Your task to perform on an android device: Search for Mexican restaurants on Maps Image 0: 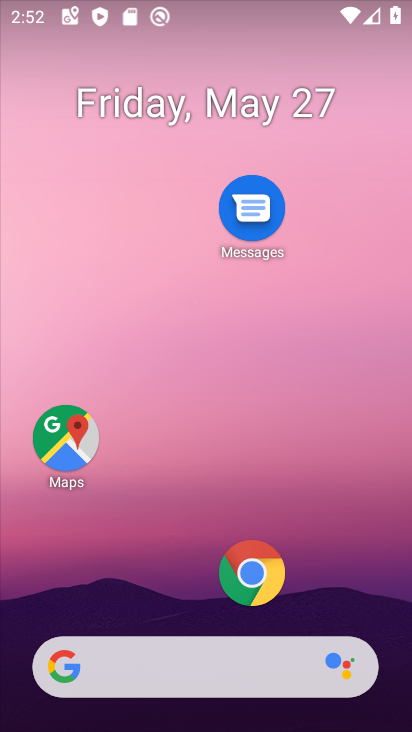
Step 0: drag from (223, 604) to (185, 271)
Your task to perform on an android device: Search for Mexican restaurants on Maps Image 1: 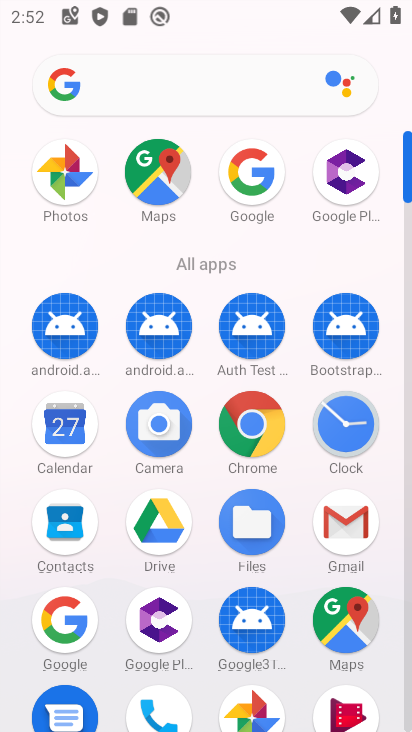
Step 1: click (333, 617)
Your task to perform on an android device: Search for Mexican restaurants on Maps Image 2: 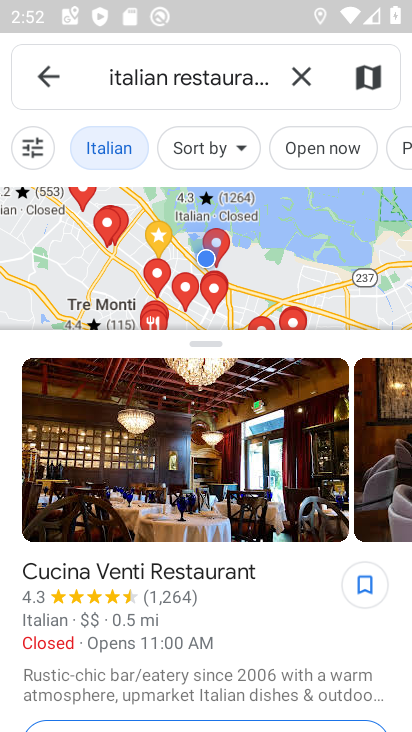
Step 2: click (295, 83)
Your task to perform on an android device: Search for Mexican restaurants on Maps Image 3: 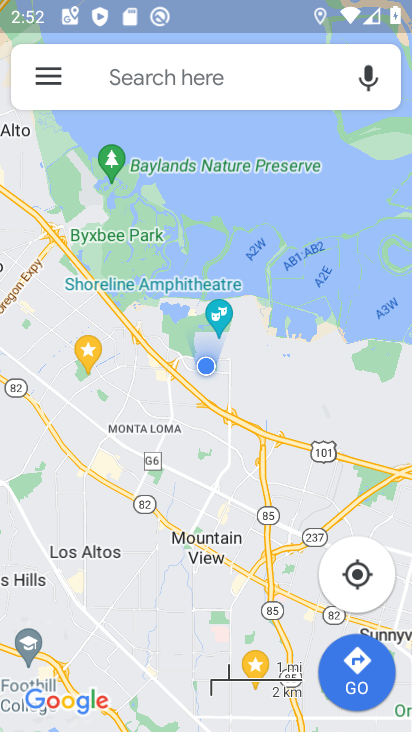
Step 3: click (207, 76)
Your task to perform on an android device: Search for Mexican restaurants on Maps Image 4: 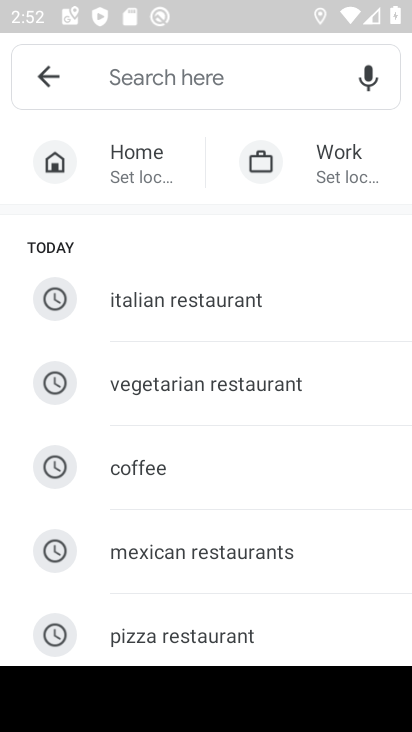
Step 4: type "mexican restaurants"
Your task to perform on an android device: Search for Mexican restaurants on Maps Image 5: 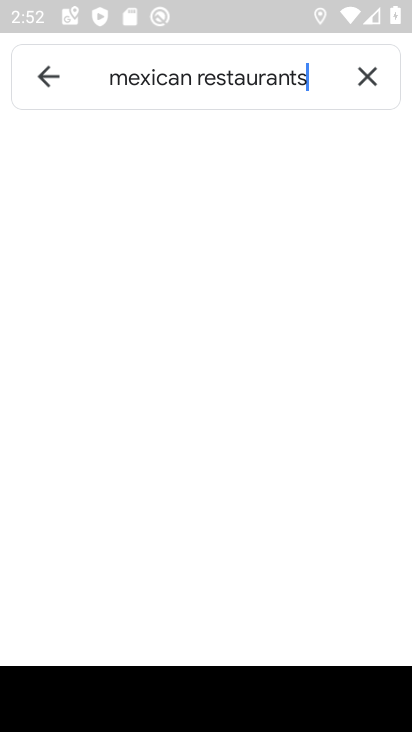
Step 5: type ""
Your task to perform on an android device: Search for Mexican restaurants on Maps Image 6: 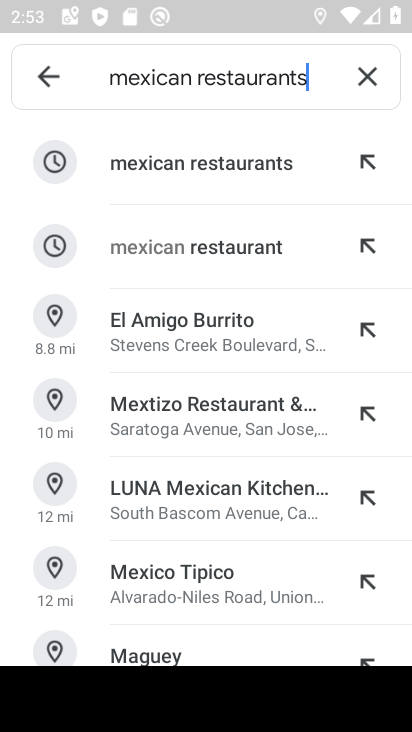
Step 6: click (263, 172)
Your task to perform on an android device: Search for Mexican restaurants on Maps Image 7: 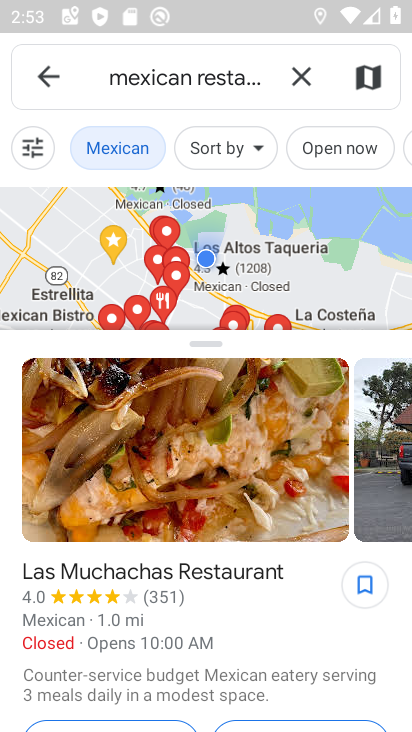
Step 7: task complete